Your task to perform on an android device: Search for pizza restaurants on Maps Image 0: 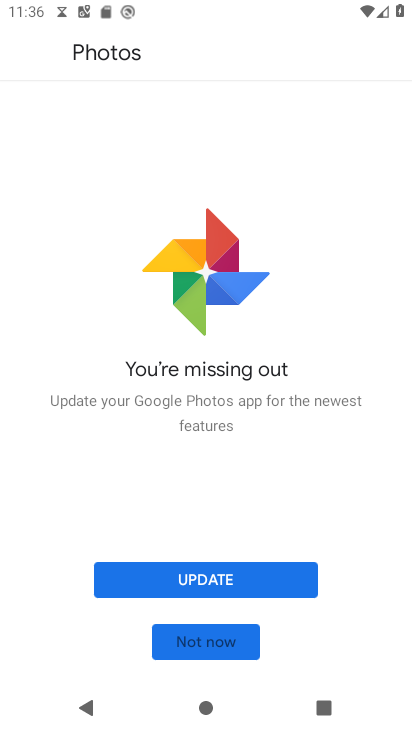
Step 0: press home button
Your task to perform on an android device: Search for pizza restaurants on Maps Image 1: 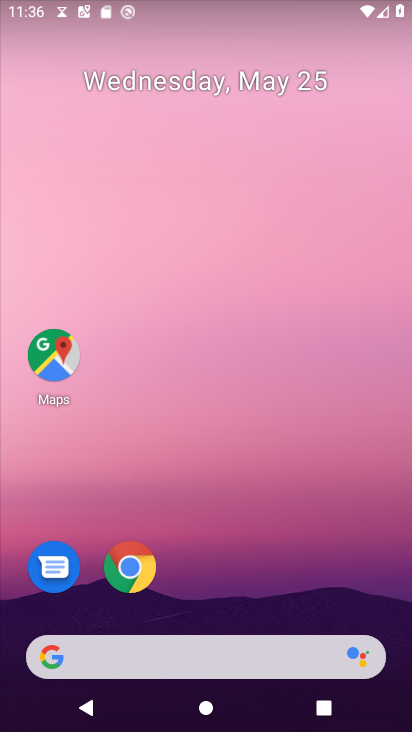
Step 1: click (49, 389)
Your task to perform on an android device: Search for pizza restaurants on Maps Image 2: 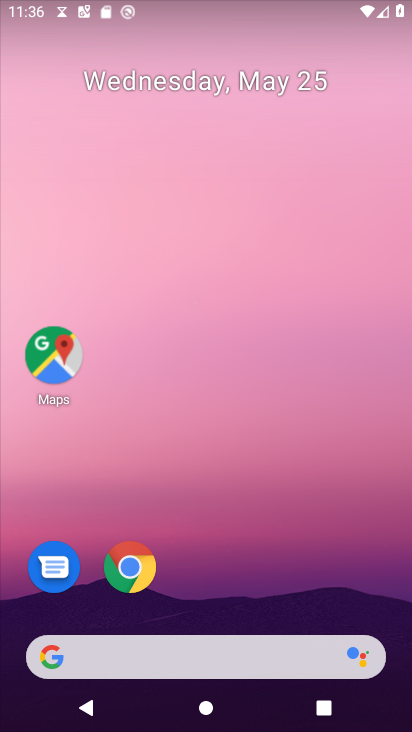
Step 2: click (57, 378)
Your task to perform on an android device: Search for pizza restaurants on Maps Image 3: 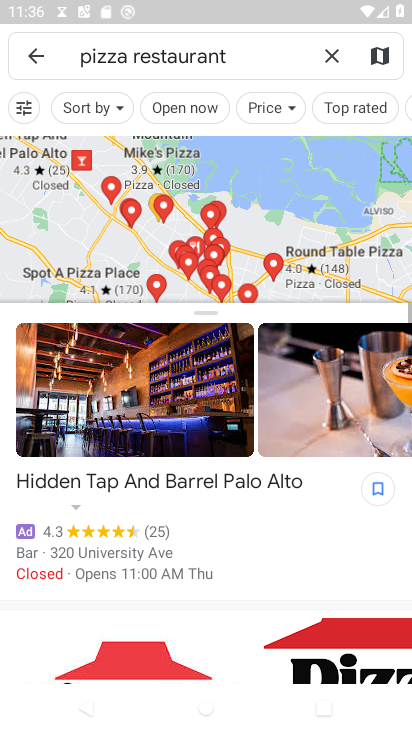
Step 3: click (336, 42)
Your task to perform on an android device: Search for pizza restaurants on Maps Image 4: 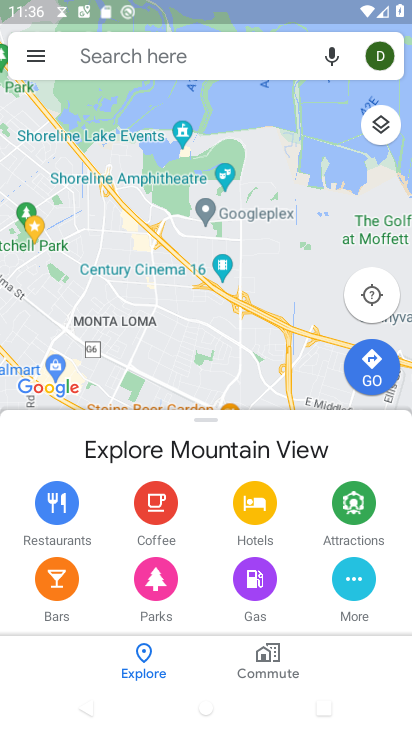
Step 4: click (214, 57)
Your task to perform on an android device: Search for pizza restaurants on Maps Image 5: 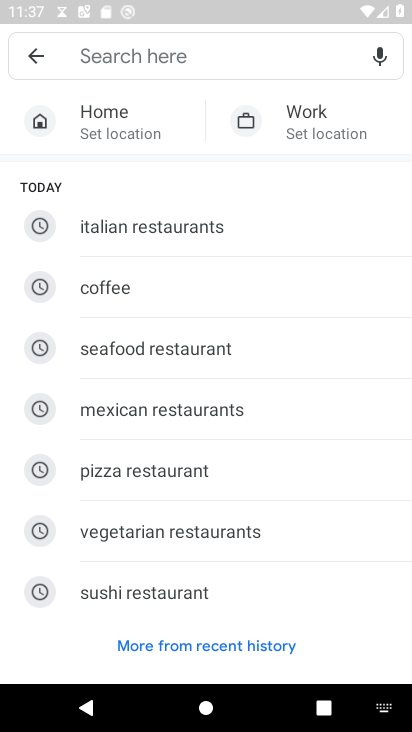
Step 5: click (230, 467)
Your task to perform on an android device: Search for pizza restaurants on Maps Image 6: 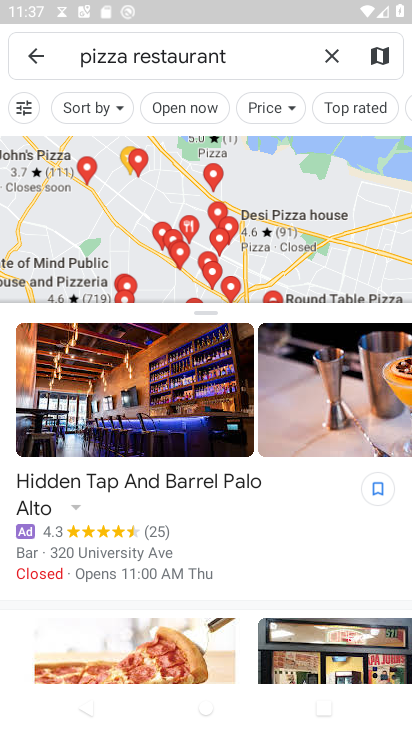
Step 6: task complete